Your task to perform on an android device: allow notifications from all sites in the chrome app Image 0: 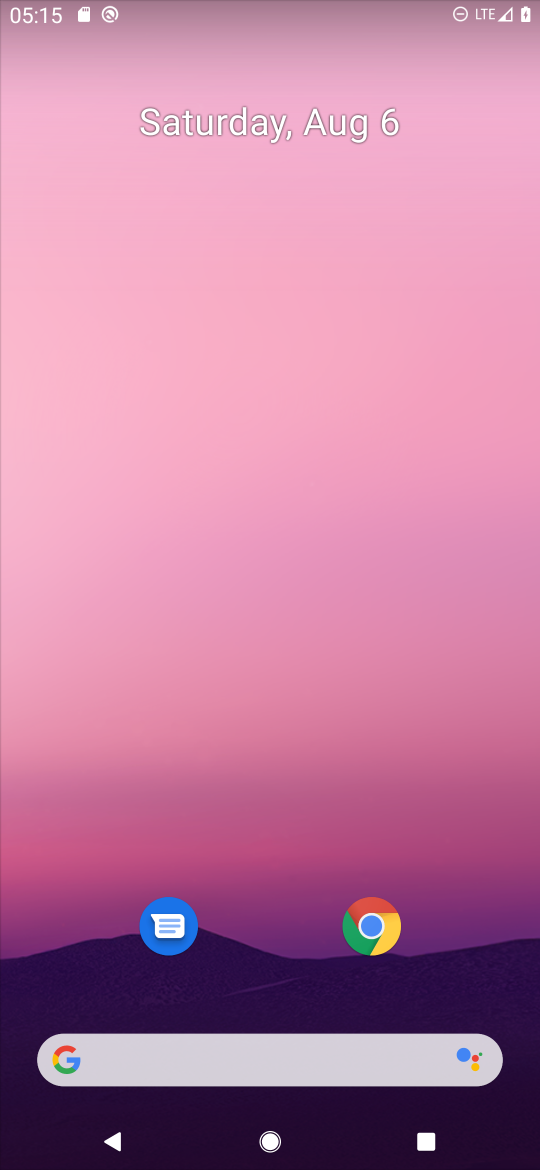
Step 0: click (379, 925)
Your task to perform on an android device: allow notifications from all sites in the chrome app Image 1: 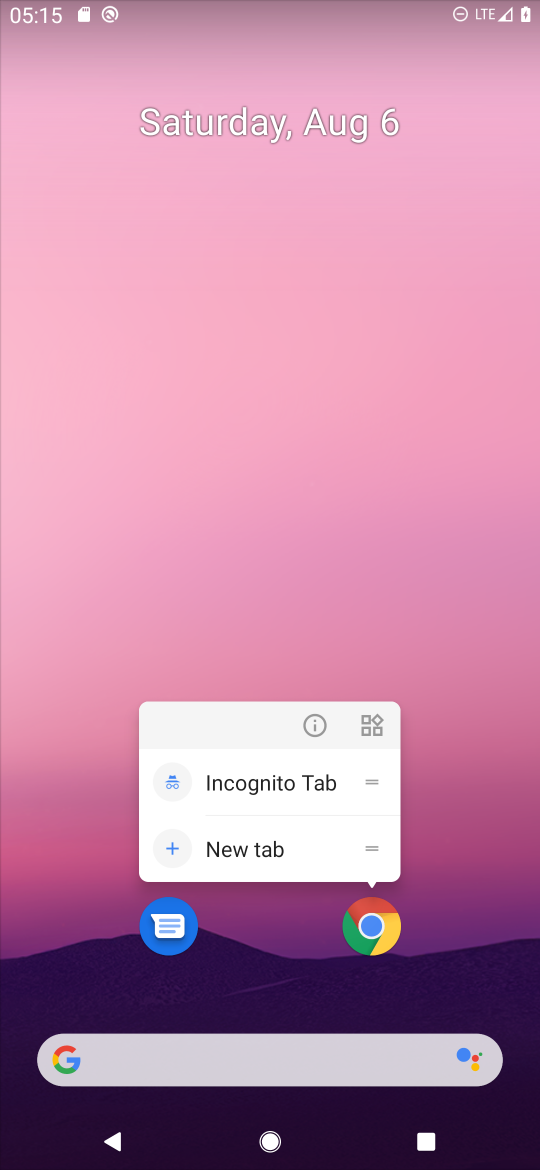
Step 1: click (379, 925)
Your task to perform on an android device: allow notifications from all sites in the chrome app Image 2: 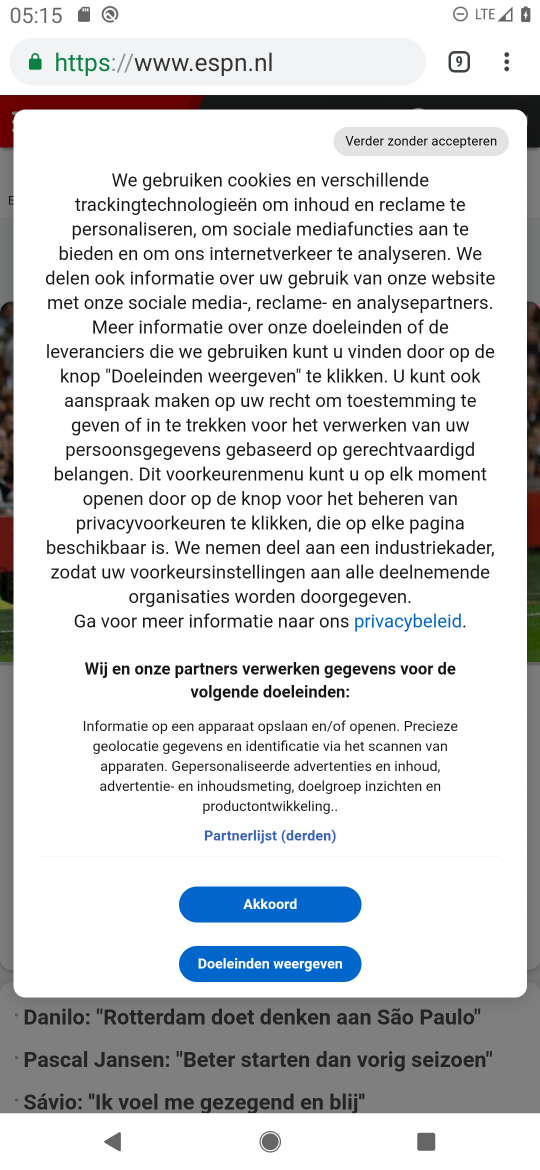
Step 2: click (496, 62)
Your task to perform on an android device: allow notifications from all sites in the chrome app Image 3: 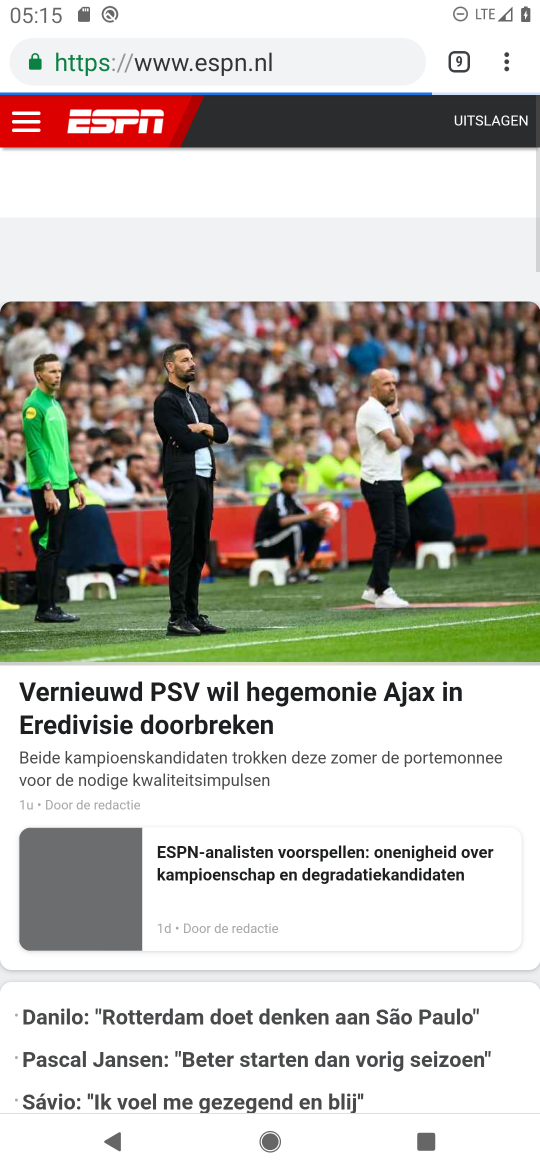
Step 3: click (499, 60)
Your task to perform on an android device: allow notifications from all sites in the chrome app Image 4: 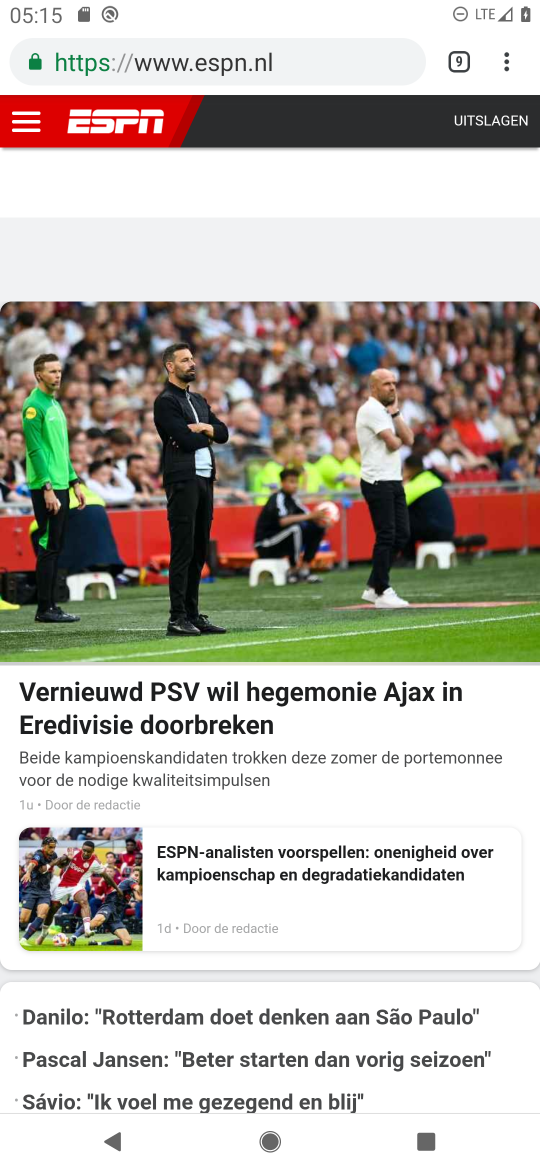
Step 4: click (499, 60)
Your task to perform on an android device: allow notifications from all sites in the chrome app Image 5: 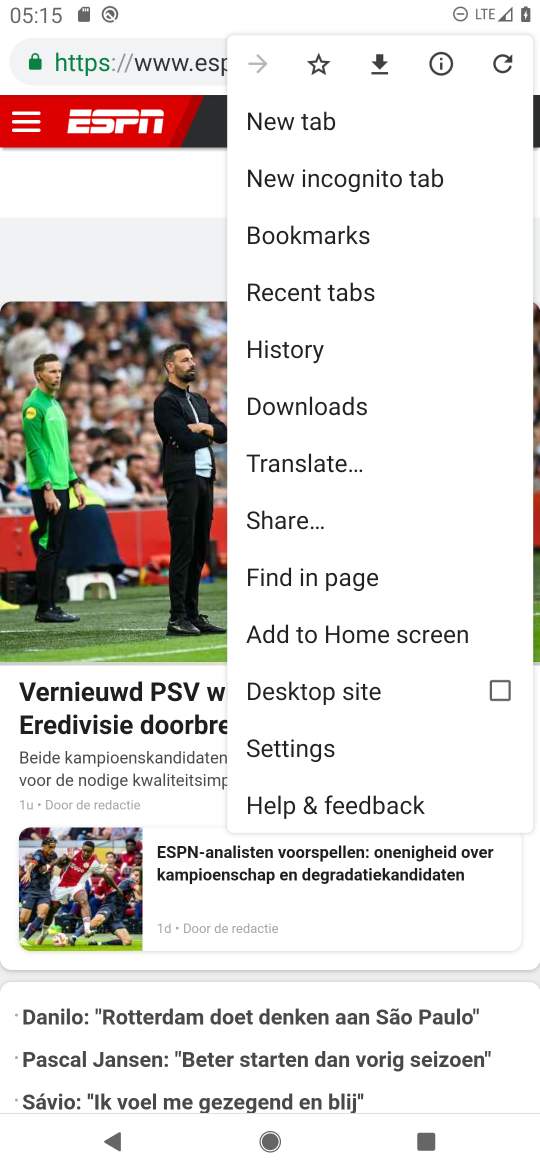
Step 5: click (282, 752)
Your task to perform on an android device: allow notifications from all sites in the chrome app Image 6: 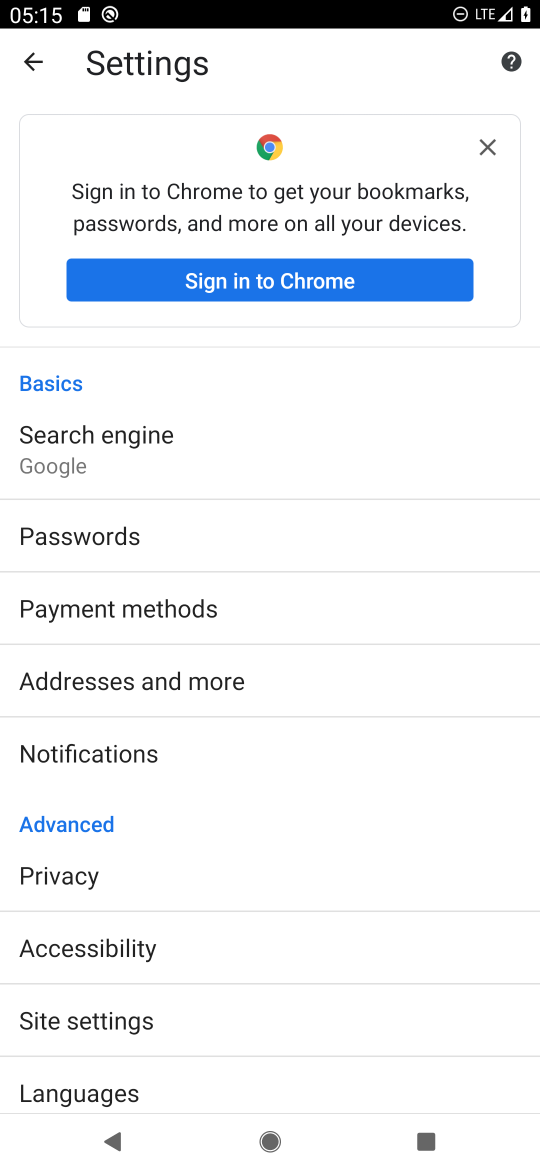
Step 6: click (182, 1014)
Your task to perform on an android device: allow notifications from all sites in the chrome app Image 7: 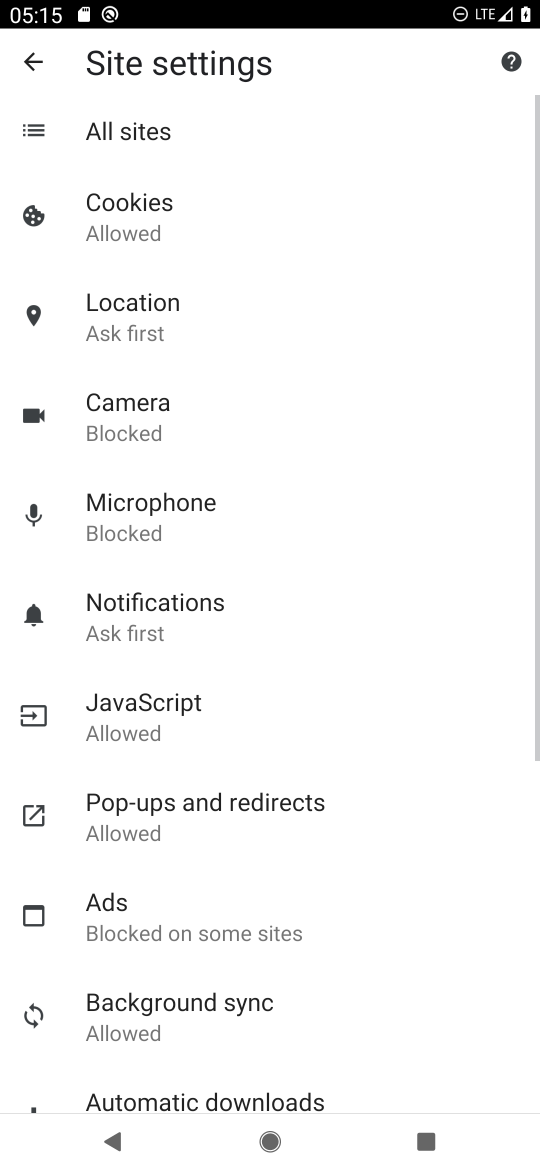
Step 7: click (150, 131)
Your task to perform on an android device: allow notifications from all sites in the chrome app Image 8: 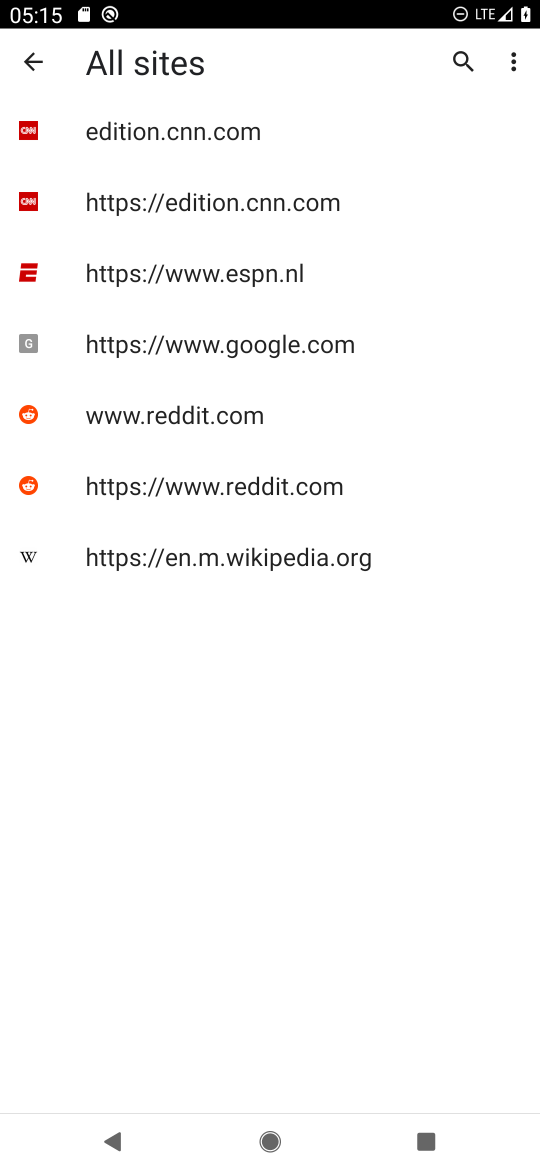
Step 8: click (257, 348)
Your task to perform on an android device: allow notifications from all sites in the chrome app Image 9: 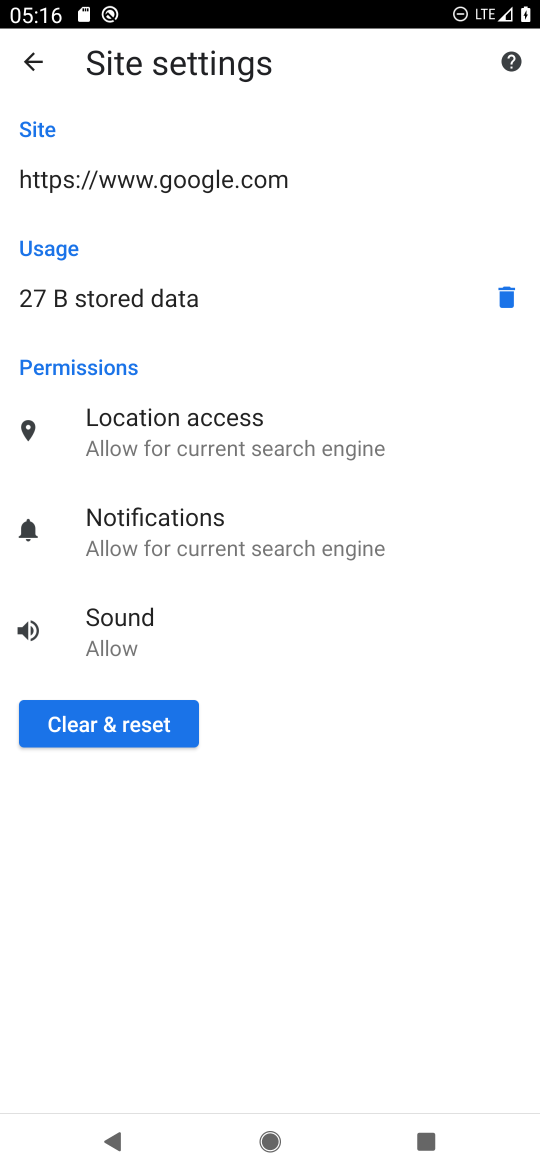
Step 9: click (260, 544)
Your task to perform on an android device: allow notifications from all sites in the chrome app Image 10: 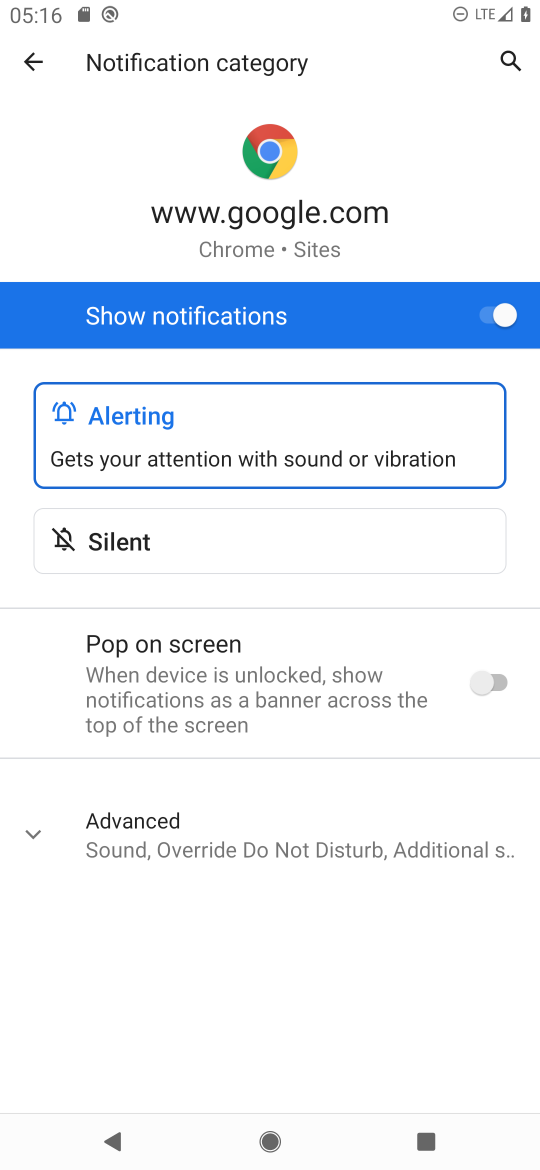
Step 10: task complete